Your task to perform on an android device: Open Android settings Image 0: 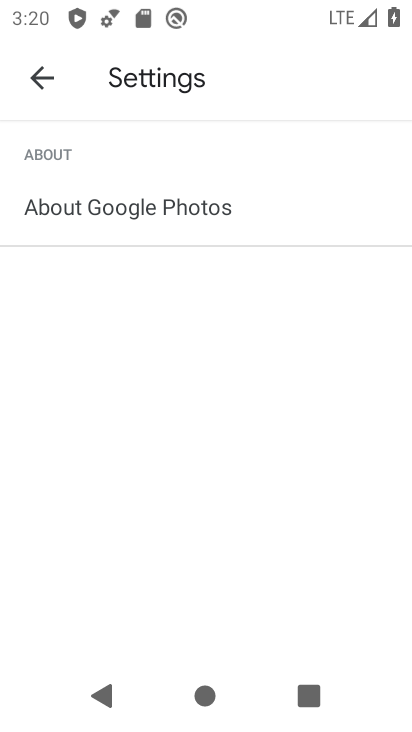
Step 0: press home button
Your task to perform on an android device: Open Android settings Image 1: 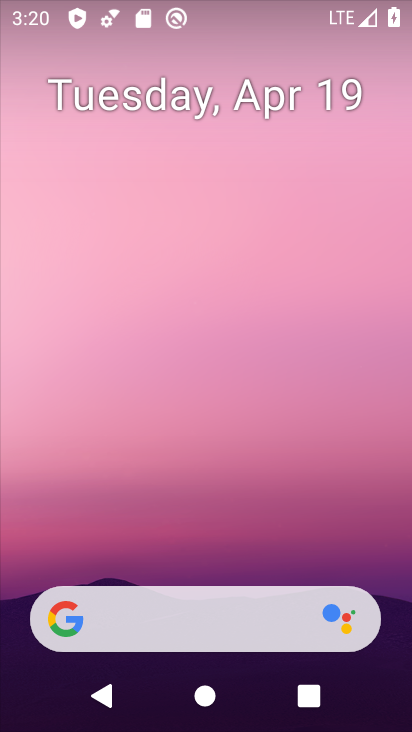
Step 1: drag from (227, 538) to (195, 141)
Your task to perform on an android device: Open Android settings Image 2: 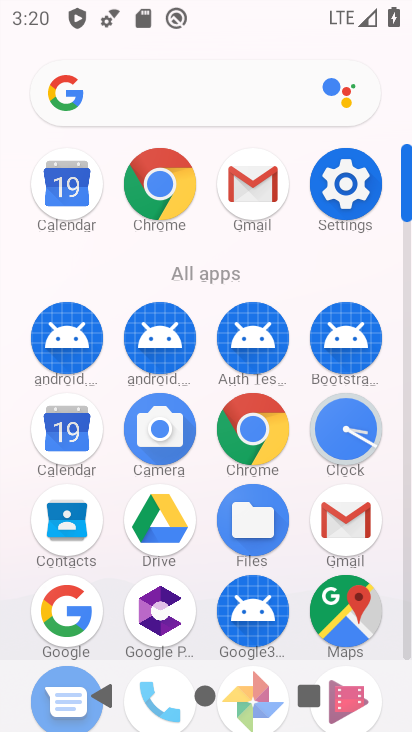
Step 2: click (347, 188)
Your task to perform on an android device: Open Android settings Image 3: 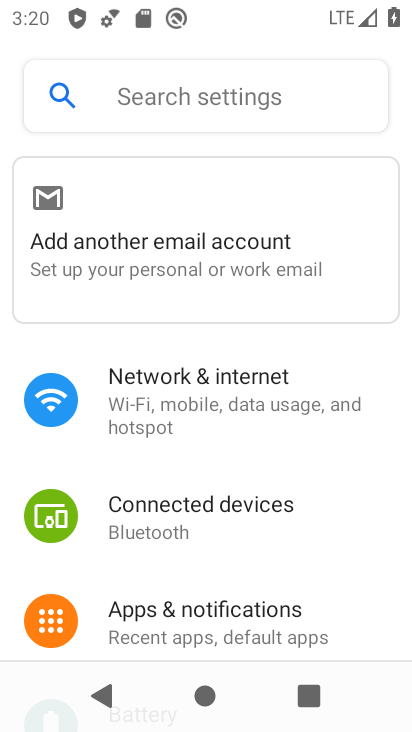
Step 3: task complete